Your task to perform on an android device: Open ESPN.com Image 0: 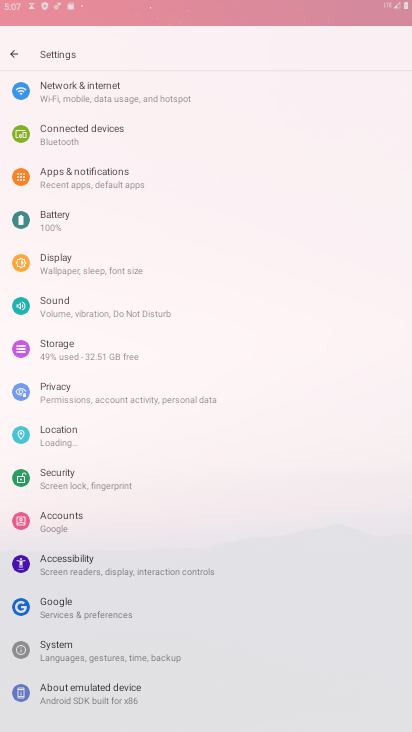
Step 0: press home button
Your task to perform on an android device: Open ESPN.com Image 1: 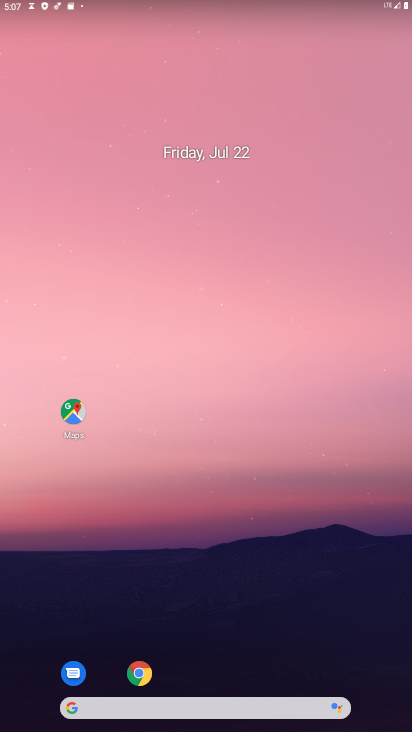
Step 1: click (71, 715)
Your task to perform on an android device: Open ESPN.com Image 2: 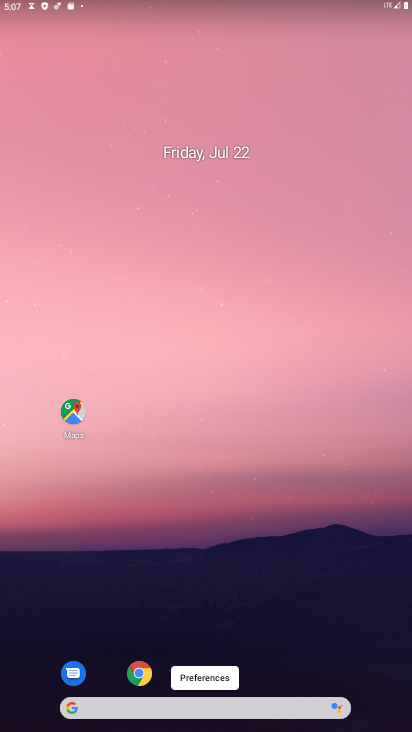
Step 2: click (73, 708)
Your task to perform on an android device: Open ESPN.com Image 3: 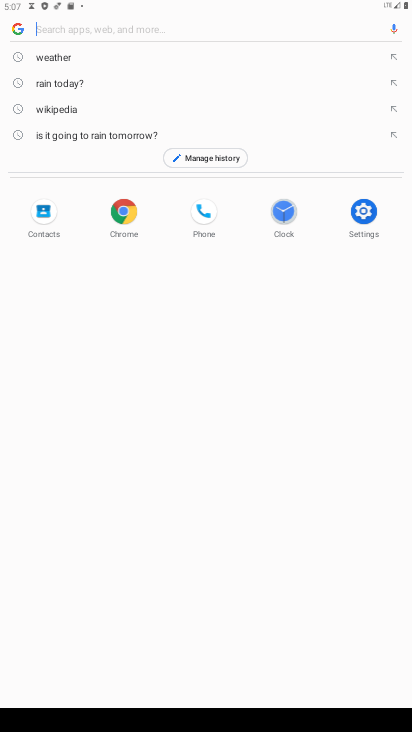
Step 3: type "ESPN.com"
Your task to perform on an android device: Open ESPN.com Image 4: 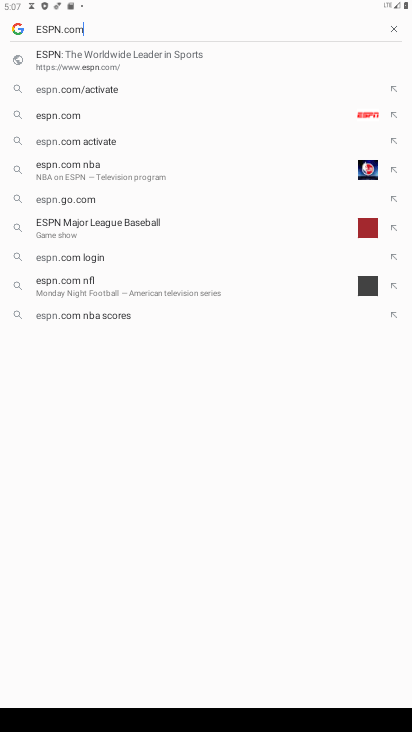
Step 4: press enter
Your task to perform on an android device: Open ESPN.com Image 5: 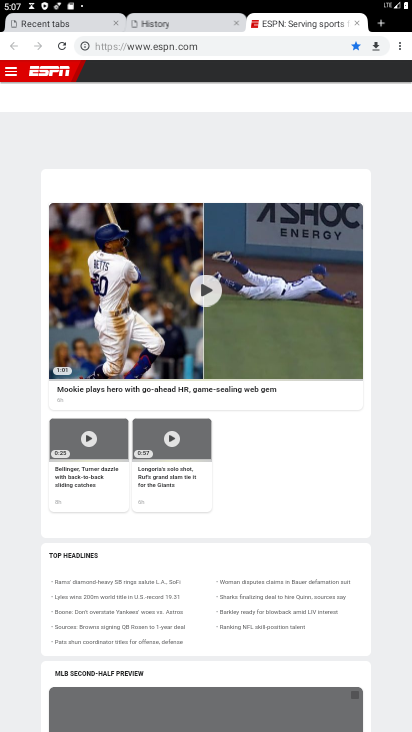
Step 5: task complete